Your task to perform on an android device: Is it going to rain today? Image 0: 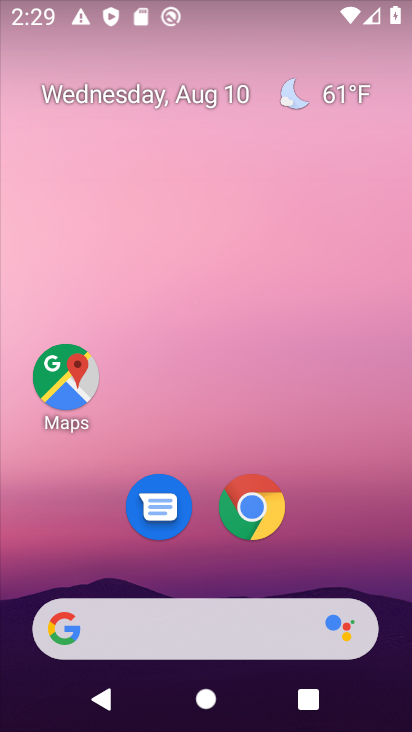
Step 0: drag from (351, 512) to (353, 77)
Your task to perform on an android device: Is it going to rain today? Image 1: 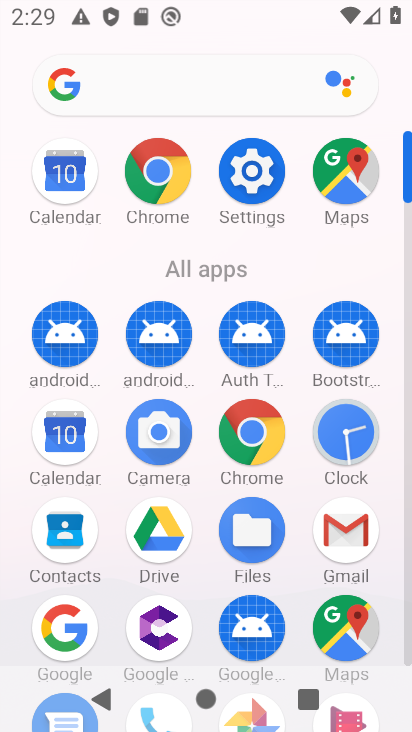
Step 1: press home button
Your task to perform on an android device: Is it going to rain today? Image 2: 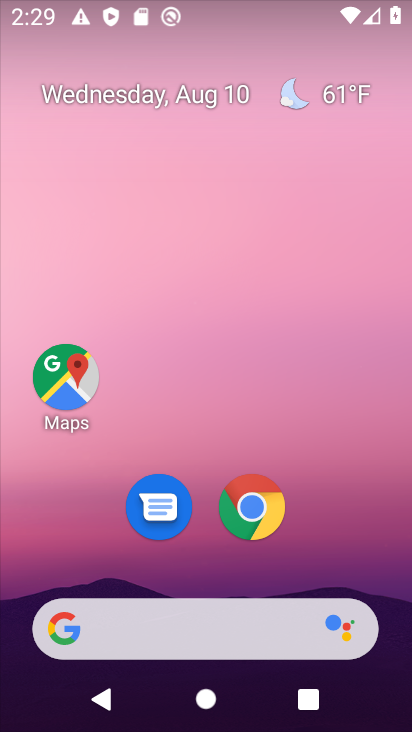
Step 2: click (333, 93)
Your task to perform on an android device: Is it going to rain today? Image 3: 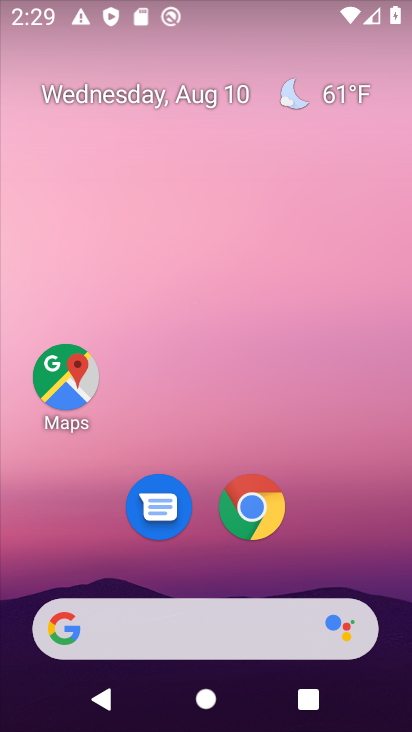
Step 3: click (339, 96)
Your task to perform on an android device: Is it going to rain today? Image 4: 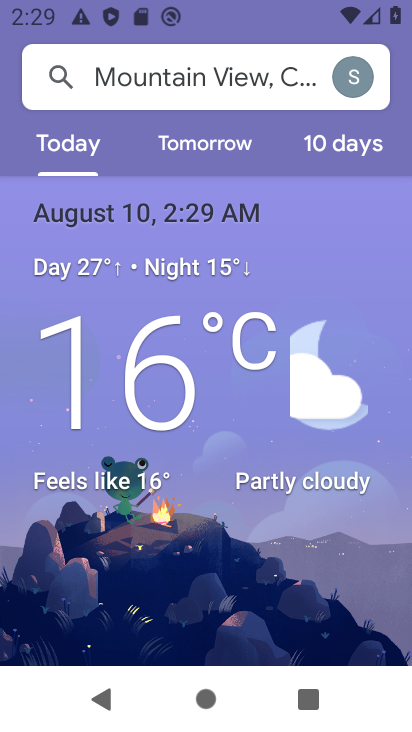
Step 4: task complete